Your task to perform on an android device: Go to battery settings Image 0: 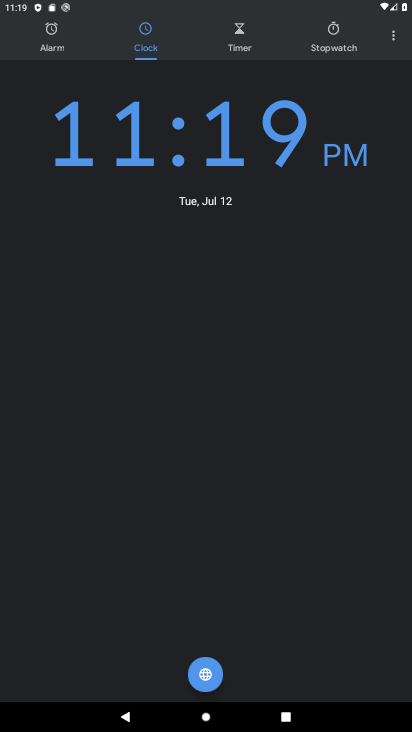
Step 0: press home button
Your task to perform on an android device: Go to battery settings Image 1: 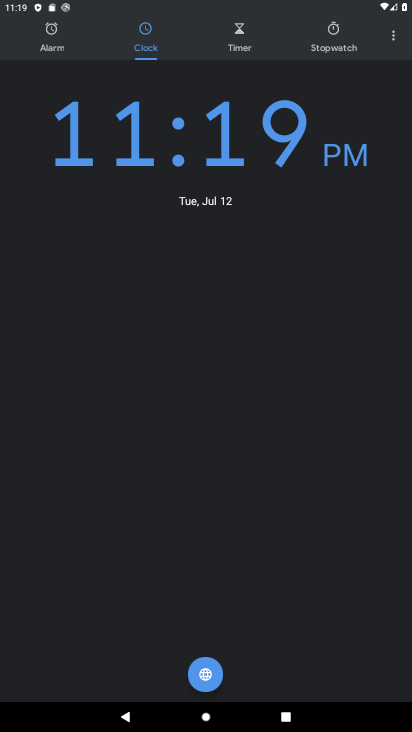
Step 1: press home button
Your task to perform on an android device: Go to battery settings Image 2: 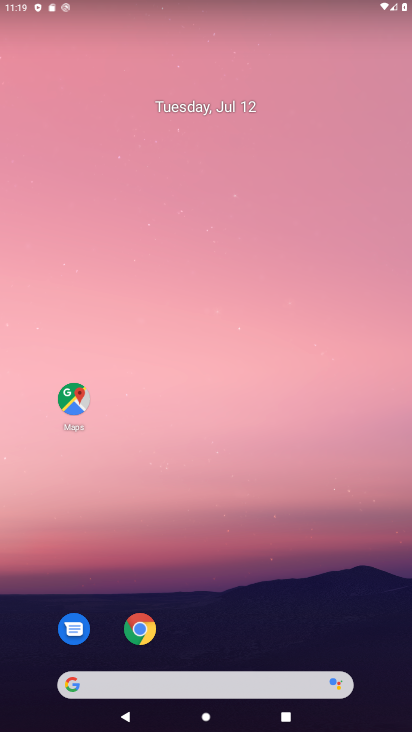
Step 2: drag from (217, 650) to (175, 204)
Your task to perform on an android device: Go to battery settings Image 3: 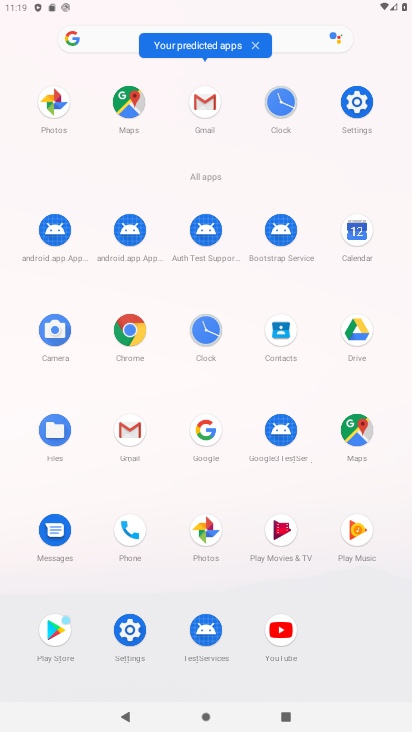
Step 3: click (353, 89)
Your task to perform on an android device: Go to battery settings Image 4: 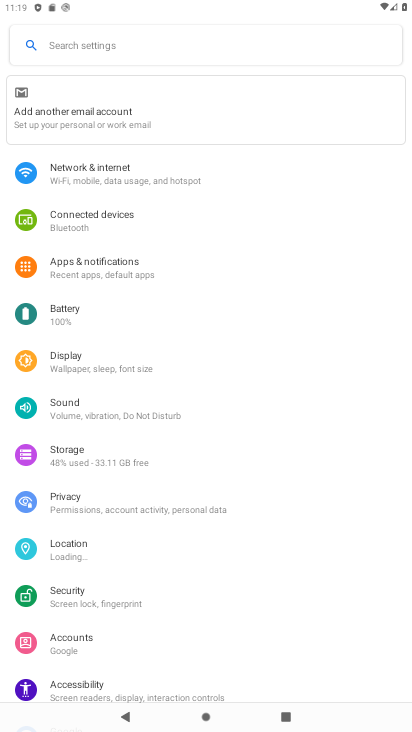
Step 4: click (73, 321)
Your task to perform on an android device: Go to battery settings Image 5: 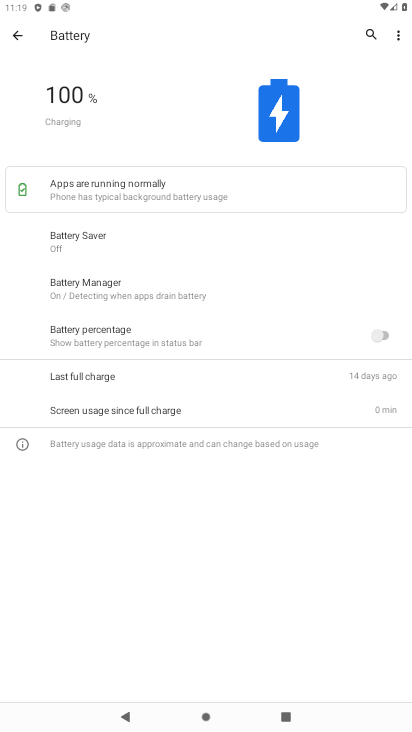
Step 5: task complete